Your task to perform on an android device: turn off notifications in google photos Image 0: 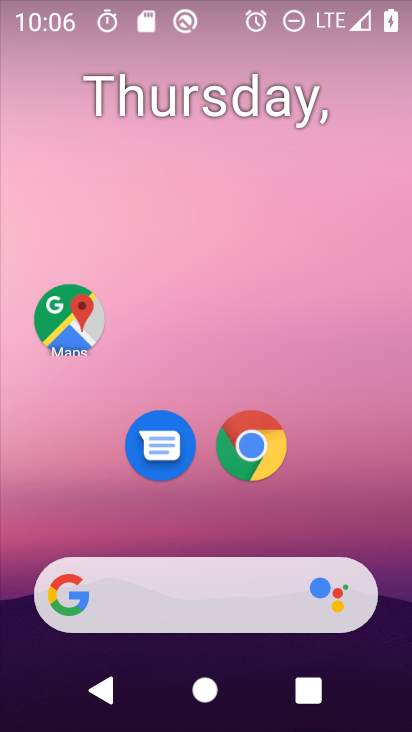
Step 0: drag from (216, 504) to (219, 121)
Your task to perform on an android device: turn off notifications in google photos Image 1: 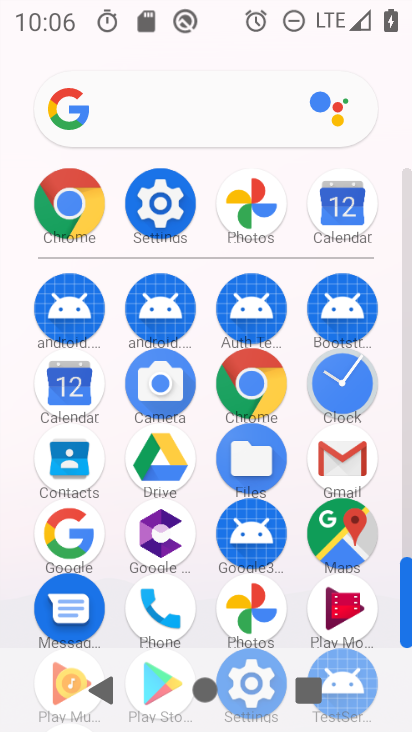
Step 1: click (254, 613)
Your task to perform on an android device: turn off notifications in google photos Image 2: 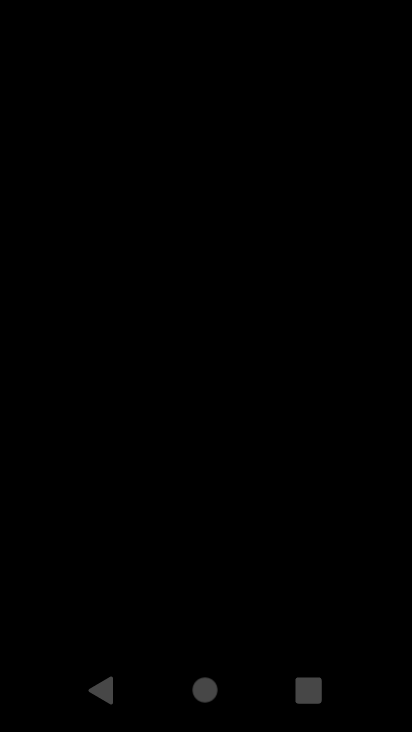
Step 2: press back button
Your task to perform on an android device: turn off notifications in google photos Image 3: 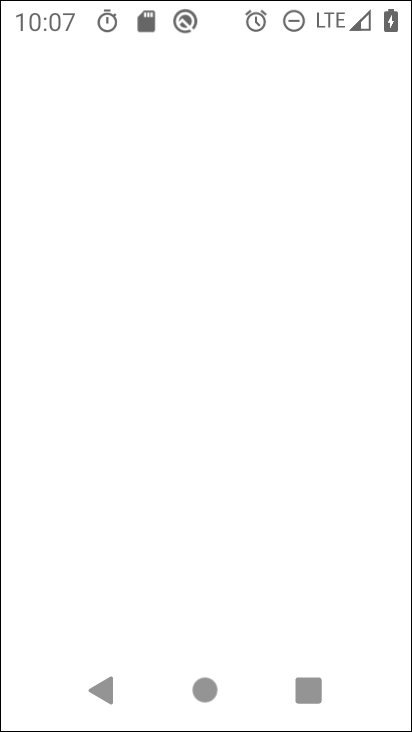
Step 3: press back button
Your task to perform on an android device: turn off notifications in google photos Image 4: 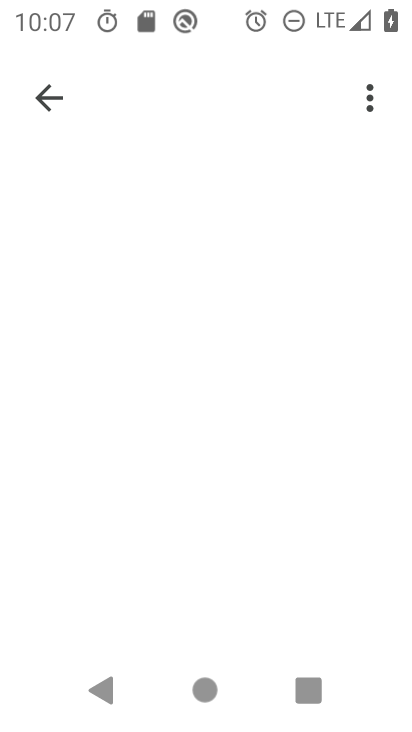
Step 4: press home button
Your task to perform on an android device: turn off notifications in google photos Image 5: 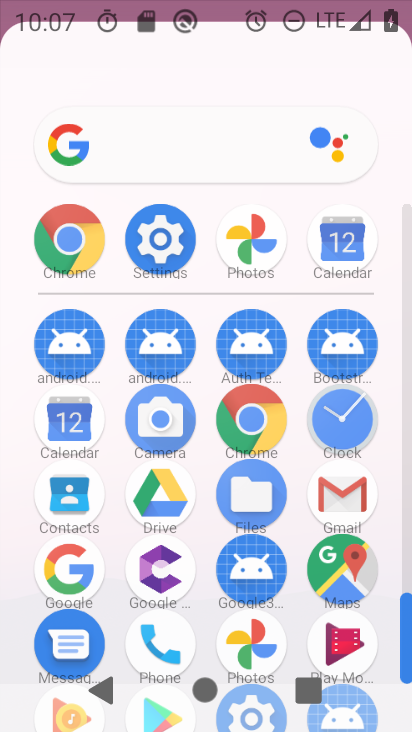
Step 5: press home button
Your task to perform on an android device: turn off notifications in google photos Image 6: 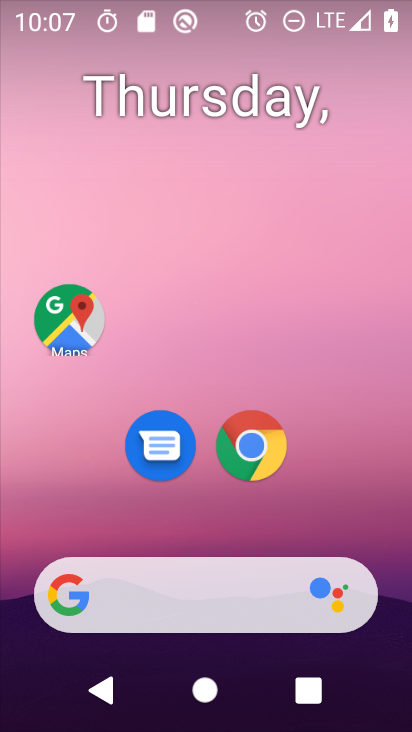
Step 6: drag from (192, 514) to (238, 211)
Your task to perform on an android device: turn off notifications in google photos Image 7: 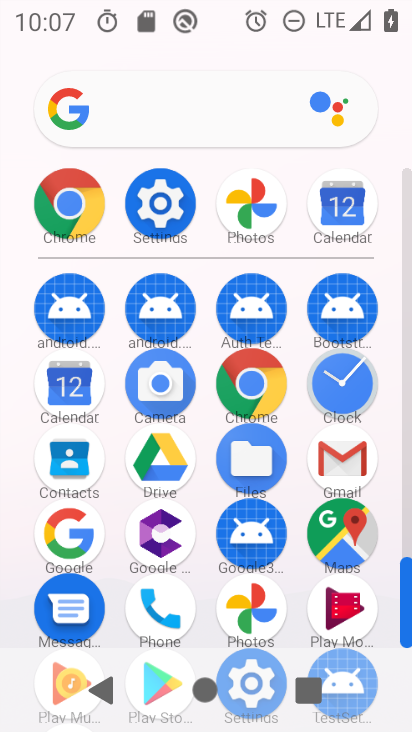
Step 7: click (243, 607)
Your task to perform on an android device: turn off notifications in google photos Image 8: 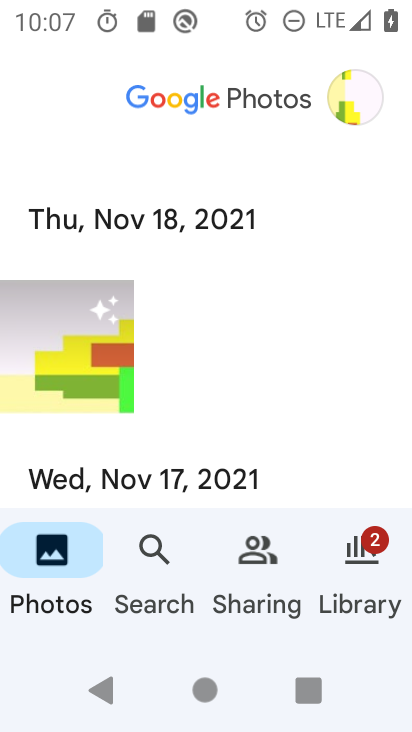
Step 8: click (357, 88)
Your task to perform on an android device: turn off notifications in google photos Image 9: 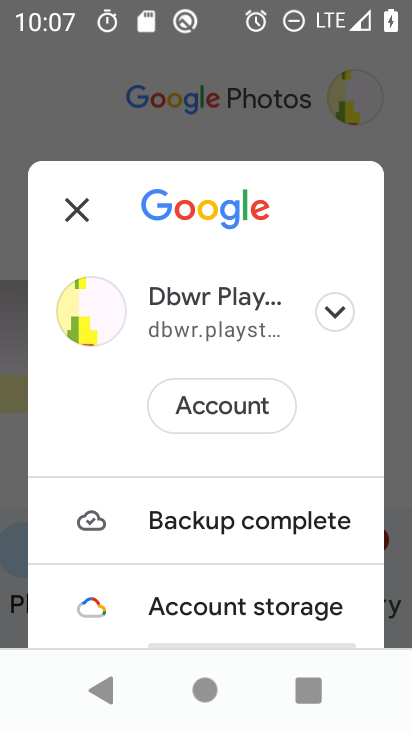
Step 9: drag from (206, 572) to (240, 183)
Your task to perform on an android device: turn off notifications in google photos Image 10: 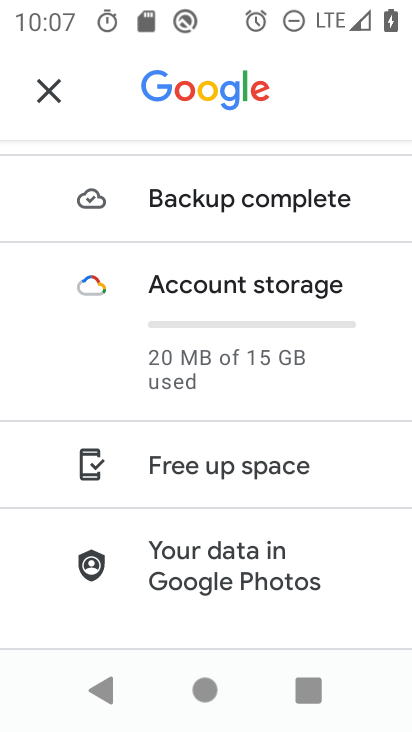
Step 10: drag from (199, 550) to (268, 142)
Your task to perform on an android device: turn off notifications in google photos Image 11: 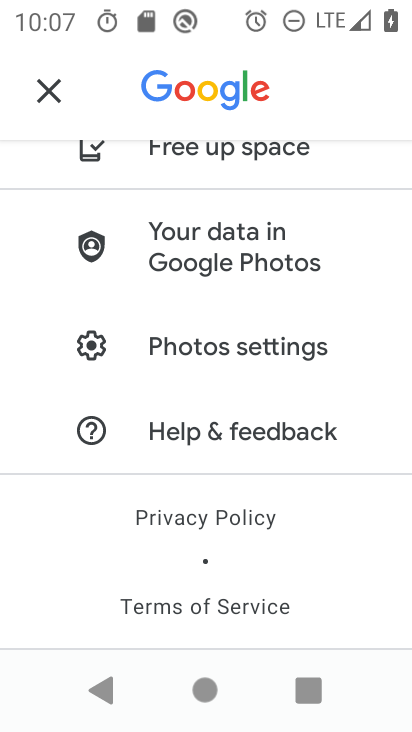
Step 11: drag from (195, 521) to (237, 266)
Your task to perform on an android device: turn off notifications in google photos Image 12: 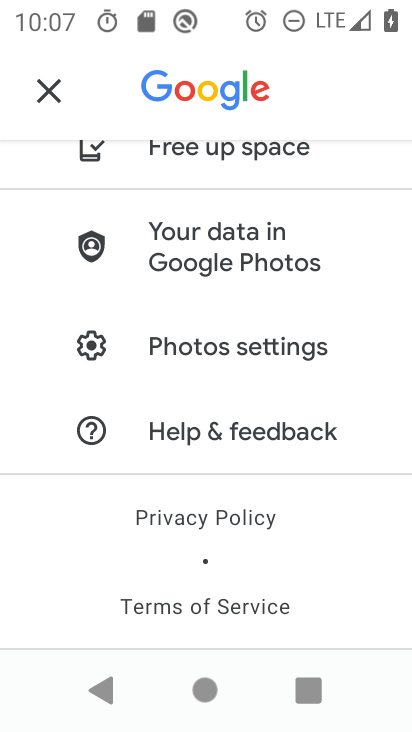
Step 12: click (174, 333)
Your task to perform on an android device: turn off notifications in google photos Image 13: 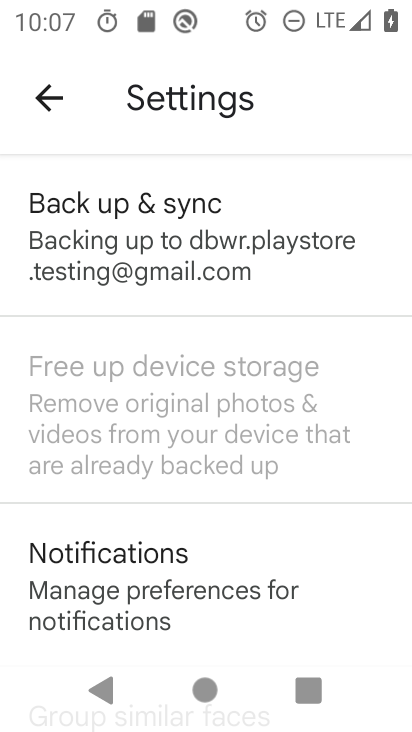
Step 13: drag from (167, 560) to (238, 206)
Your task to perform on an android device: turn off notifications in google photos Image 14: 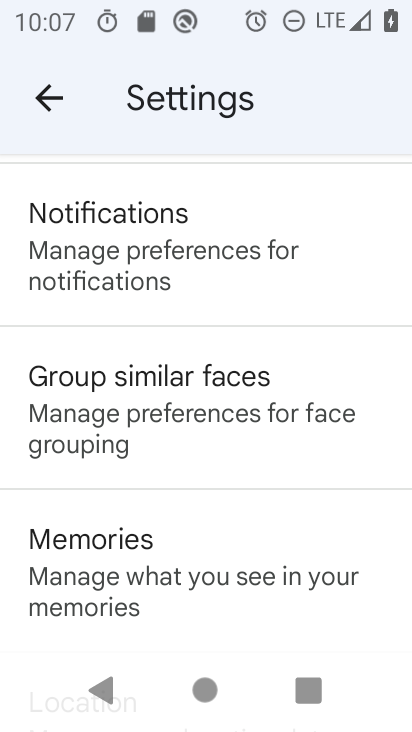
Step 14: click (138, 224)
Your task to perform on an android device: turn off notifications in google photos Image 15: 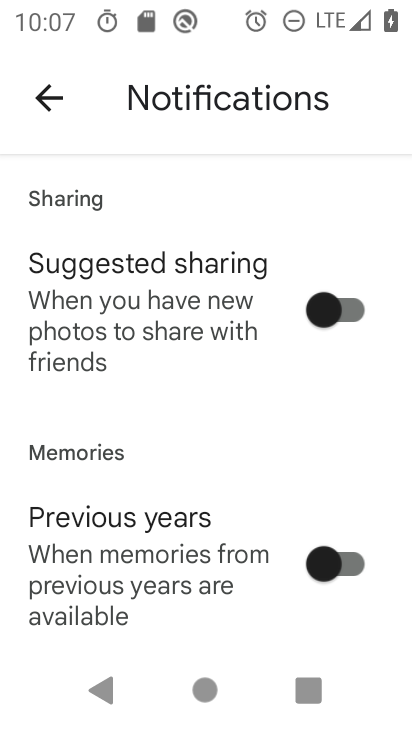
Step 15: drag from (218, 399) to (345, 192)
Your task to perform on an android device: turn off notifications in google photos Image 16: 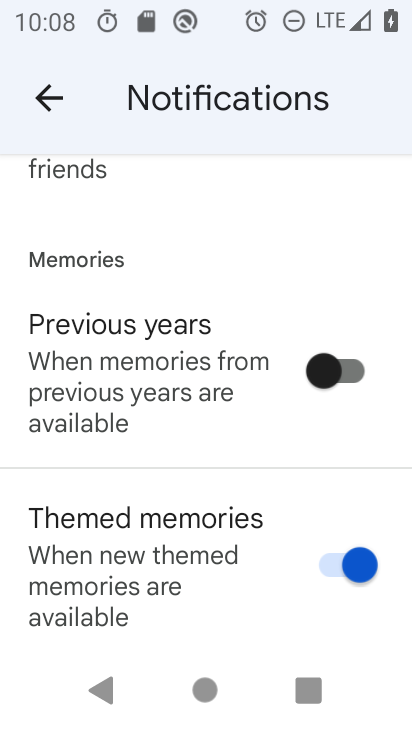
Step 16: drag from (225, 532) to (296, 285)
Your task to perform on an android device: turn off notifications in google photos Image 17: 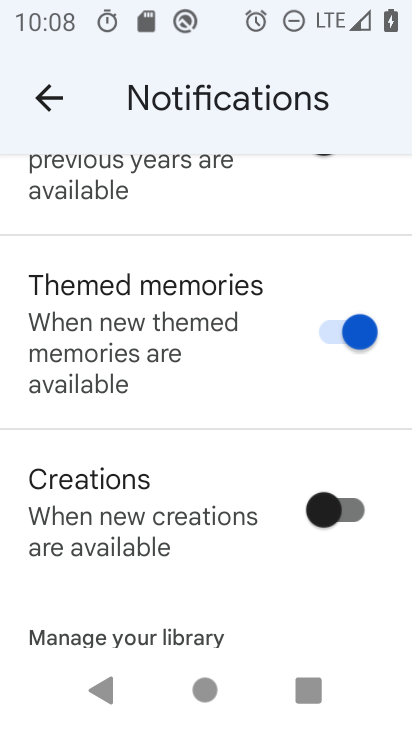
Step 17: click (46, 106)
Your task to perform on an android device: turn off notifications in google photos Image 18: 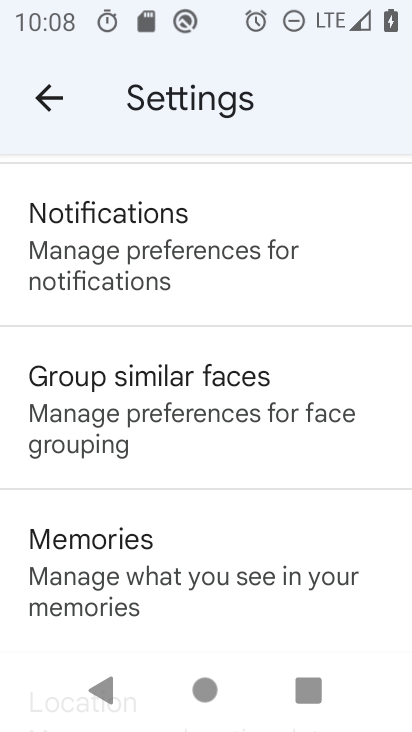
Step 18: click (181, 205)
Your task to perform on an android device: turn off notifications in google photos Image 19: 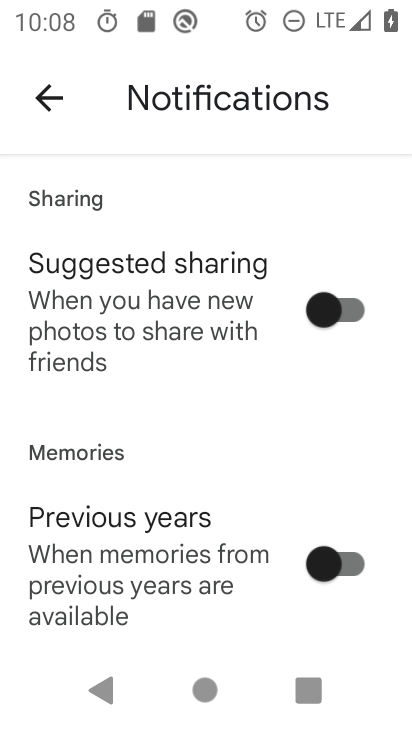
Step 19: click (65, 81)
Your task to perform on an android device: turn off notifications in google photos Image 20: 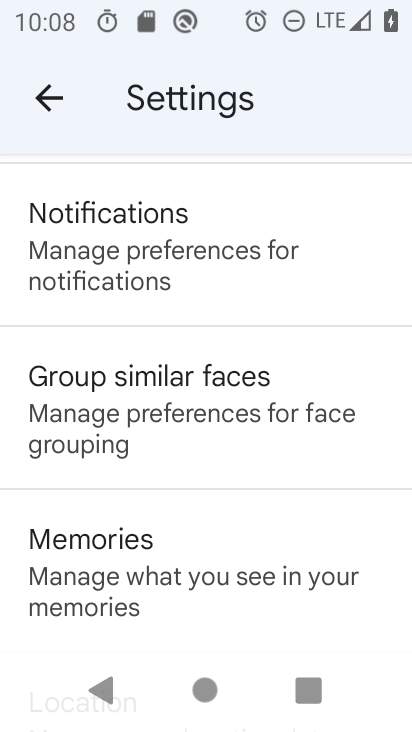
Step 20: drag from (197, 324) to (215, 572)
Your task to perform on an android device: turn off notifications in google photos Image 21: 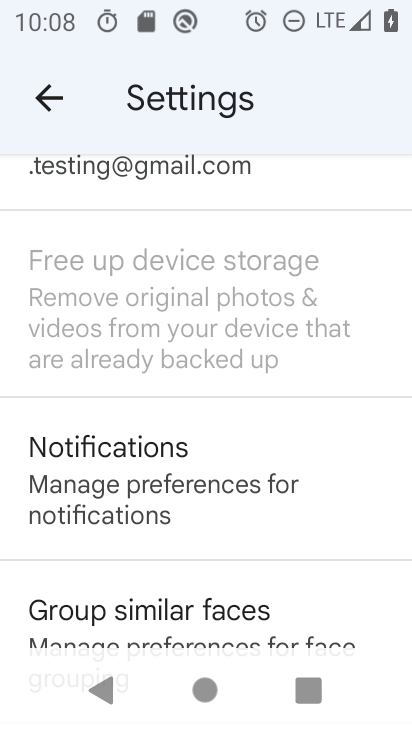
Step 21: click (132, 468)
Your task to perform on an android device: turn off notifications in google photos Image 22: 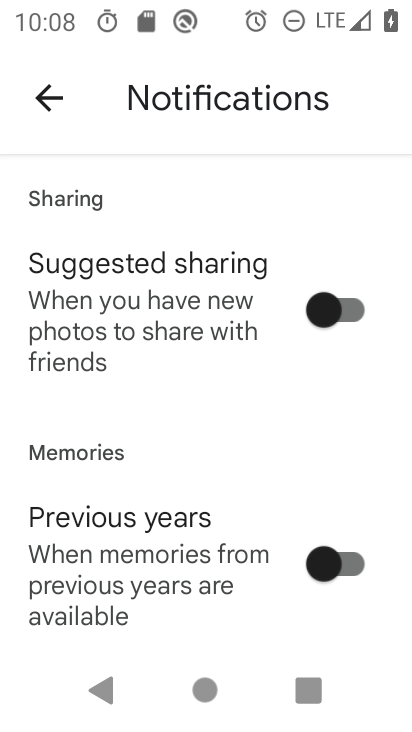
Step 22: drag from (162, 600) to (292, 125)
Your task to perform on an android device: turn off notifications in google photos Image 23: 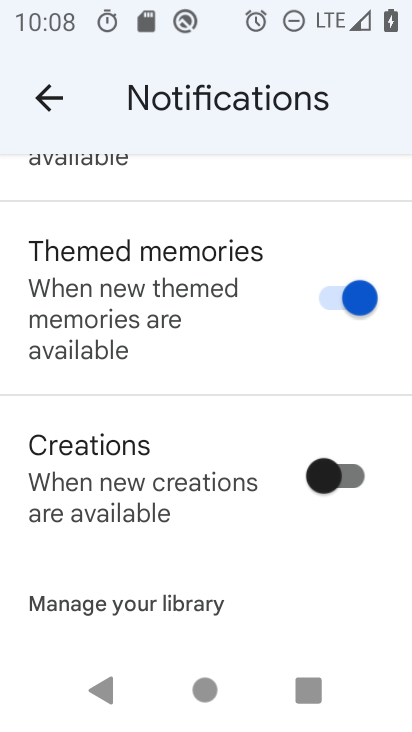
Step 23: drag from (182, 550) to (378, 32)
Your task to perform on an android device: turn off notifications in google photos Image 24: 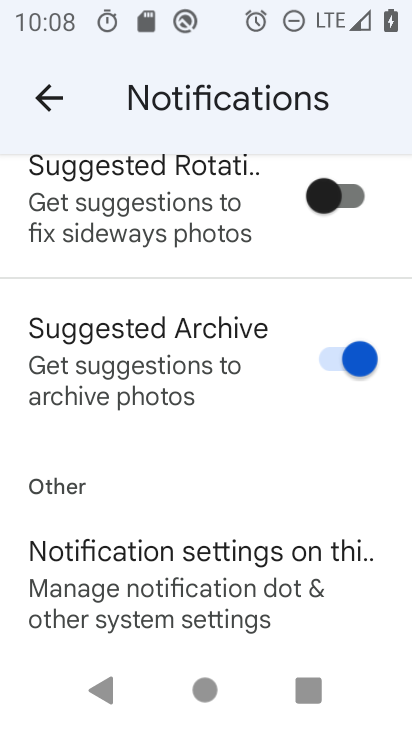
Step 24: click (192, 590)
Your task to perform on an android device: turn off notifications in google photos Image 25: 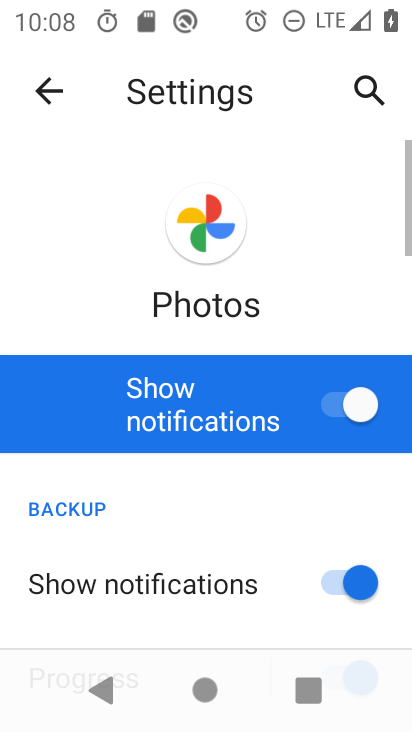
Step 25: click (347, 400)
Your task to perform on an android device: turn off notifications in google photos Image 26: 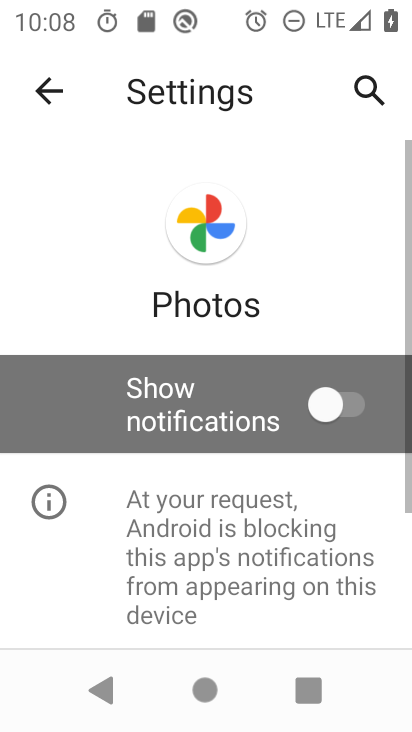
Step 26: task complete